Your task to perform on an android device: turn notification dots off Image 0: 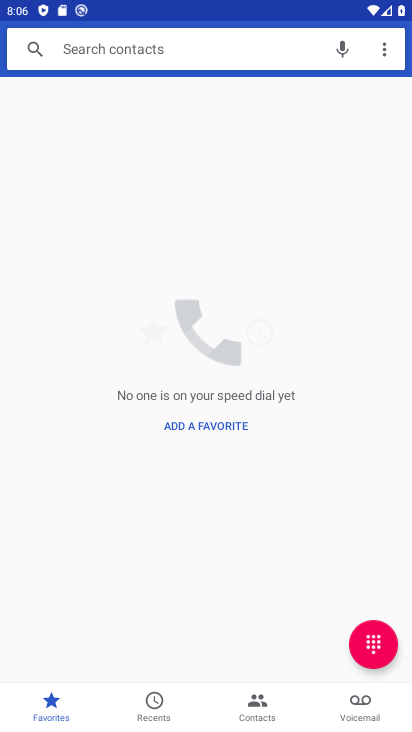
Step 0: press home button
Your task to perform on an android device: turn notification dots off Image 1: 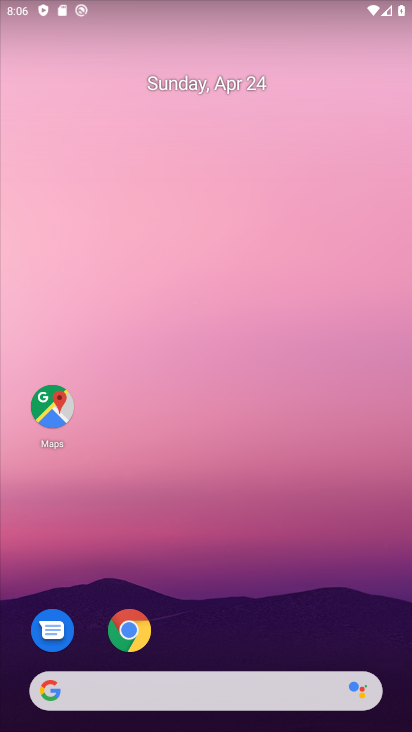
Step 1: drag from (218, 643) to (321, 23)
Your task to perform on an android device: turn notification dots off Image 2: 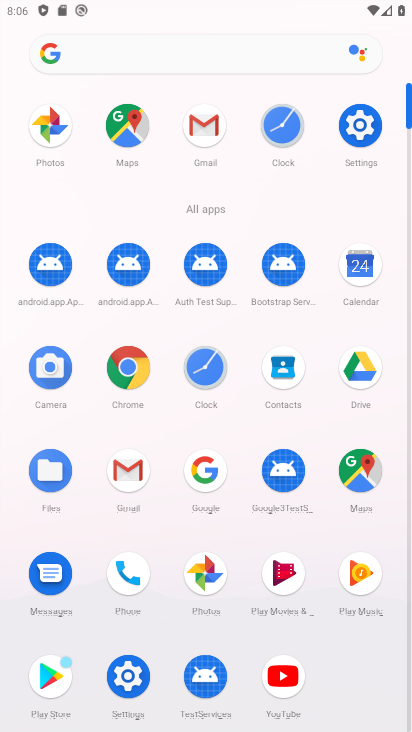
Step 2: click (365, 136)
Your task to perform on an android device: turn notification dots off Image 3: 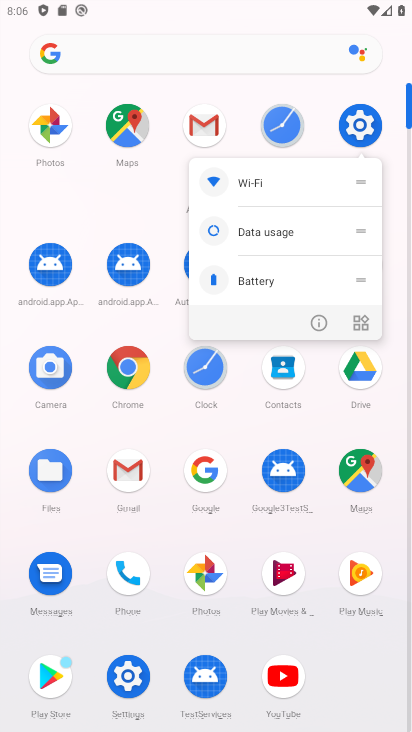
Step 3: click (351, 126)
Your task to perform on an android device: turn notification dots off Image 4: 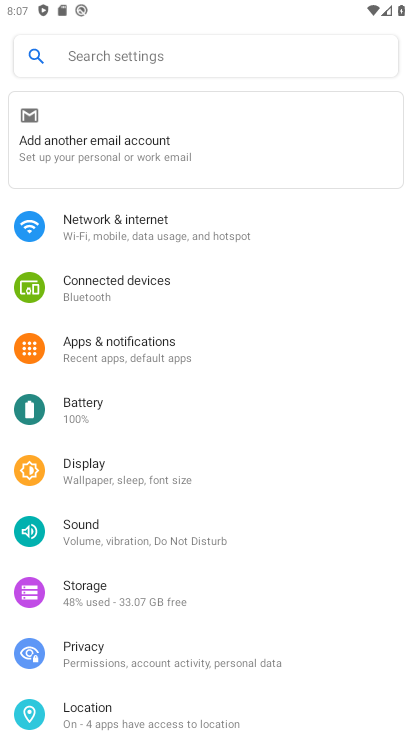
Step 4: click (156, 344)
Your task to perform on an android device: turn notification dots off Image 5: 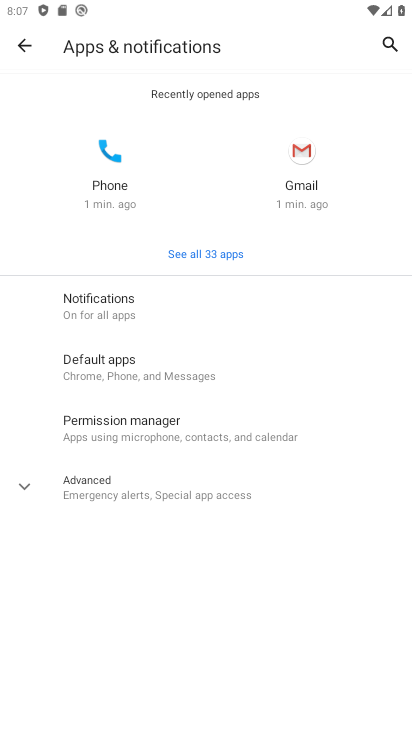
Step 5: click (110, 308)
Your task to perform on an android device: turn notification dots off Image 6: 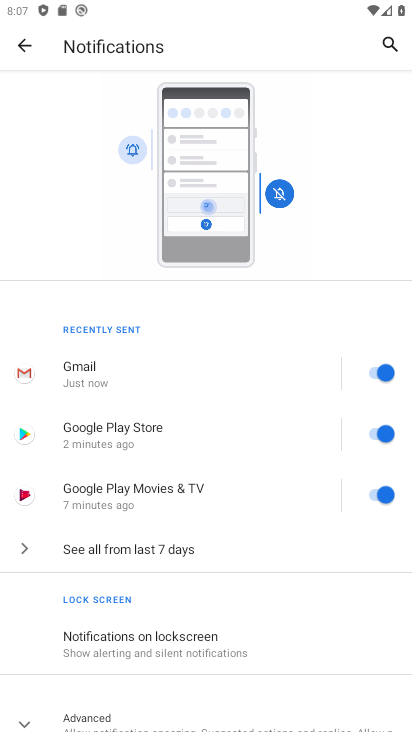
Step 6: drag from (204, 655) to (252, 205)
Your task to perform on an android device: turn notification dots off Image 7: 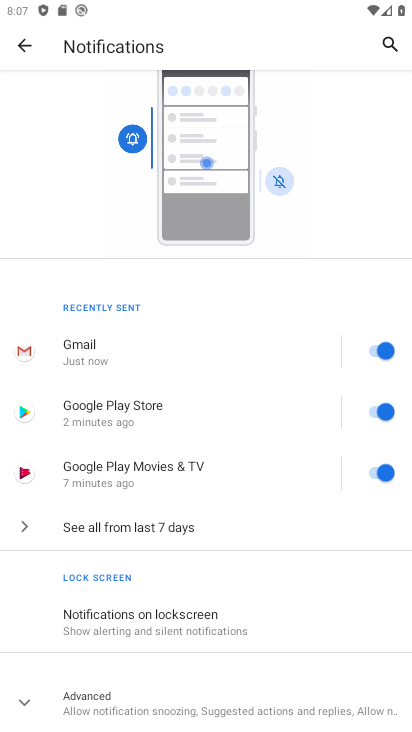
Step 7: click (179, 703)
Your task to perform on an android device: turn notification dots off Image 8: 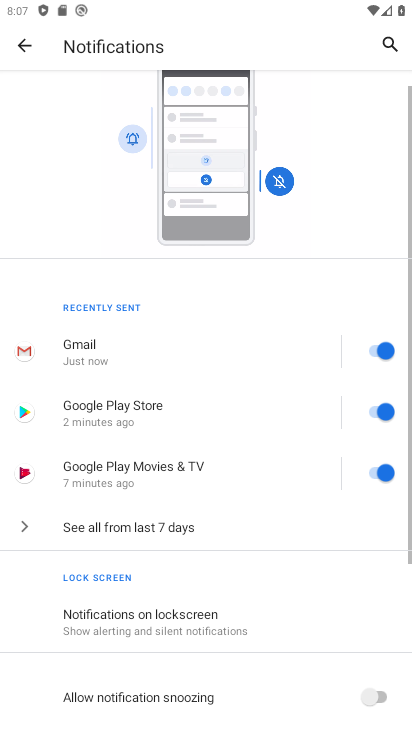
Step 8: drag from (173, 698) to (195, 512)
Your task to perform on an android device: turn notification dots off Image 9: 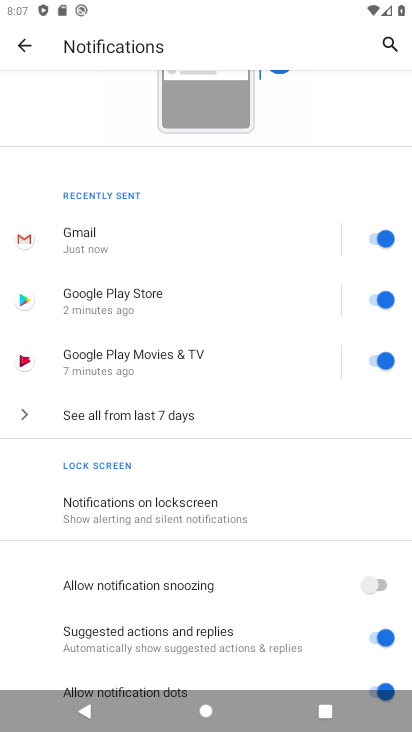
Step 9: drag from (205, 566) to (193, 204)
Your task to perform on an android device: turn notification dots off Image 10: 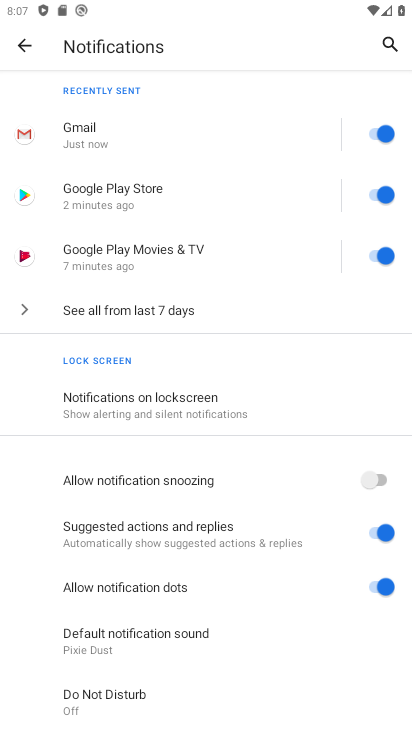
Step 10: click (364, 592)
Your task to perform on an android device: turn notification dots off Image 11: 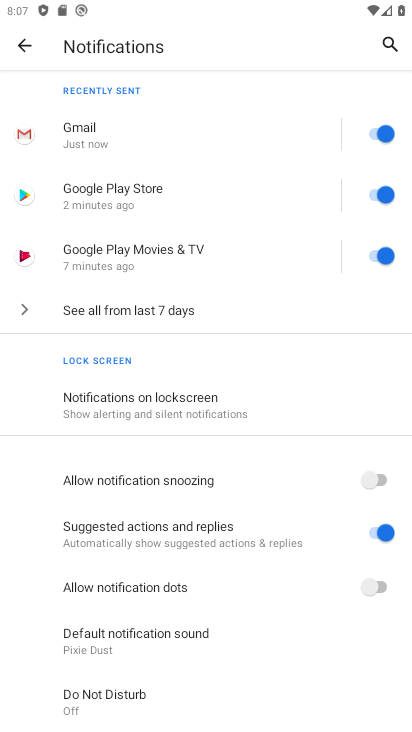
Step 11: task complete